Your task to perform on an android device: When is my next appointment? Image 0: 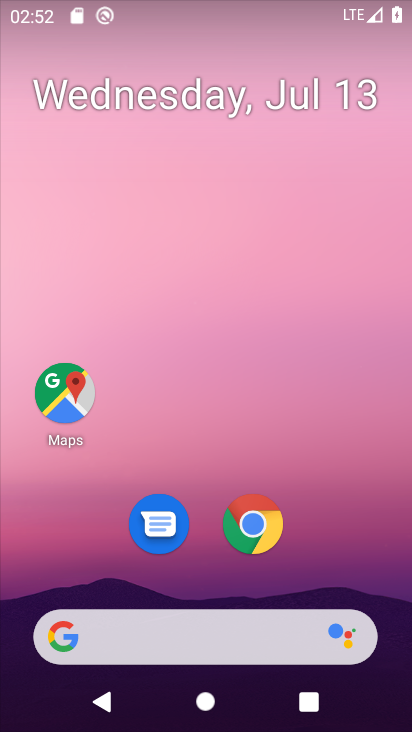
Step 0: drag from (319, 549) to (340, 75)
Your task to perform on an android device: When is my next appointment? Image 1: 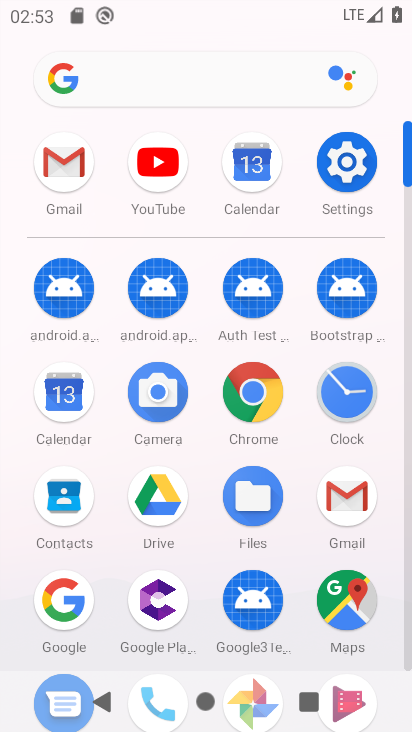
Step 1: click (258, 161)
Your task to perform on an android device: When is my next appointment? Image 2: 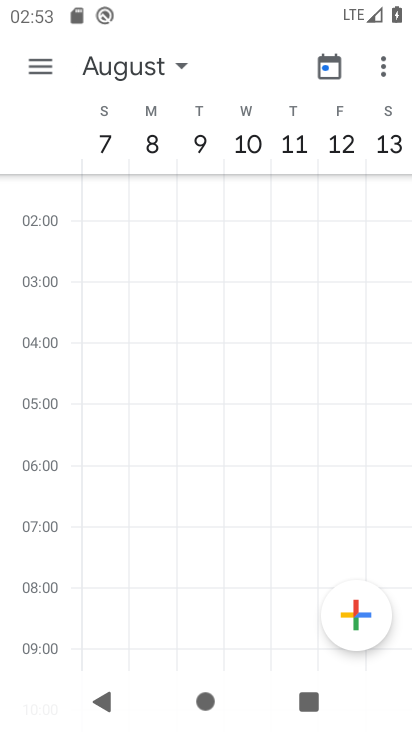
Step 2: click (42, 64)
Your task to perform on an android device: When is my next appointment? Image 3: 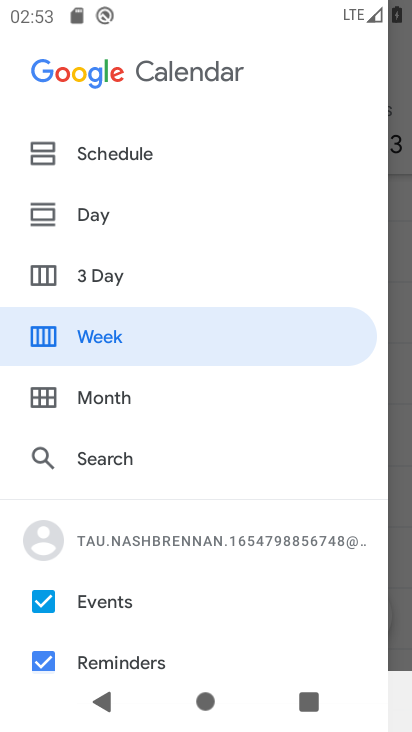
Step 3: click (47, 396)
Your task to perform on an android device: When is my next appointment? Image 4: 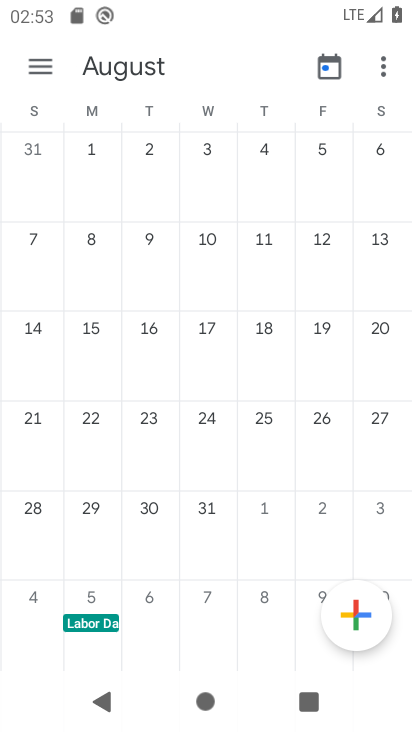
Step 4: drag from (129, 347) to (393, 348)
Your task to perform on an android device: When is my next appointment? Image 5: 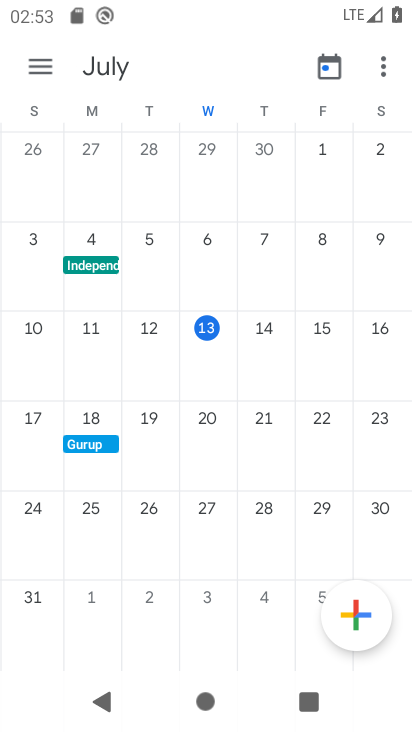
Step 5: click (210, 333)
Your task to perform on an android device: When is my next appointment? Image 6: 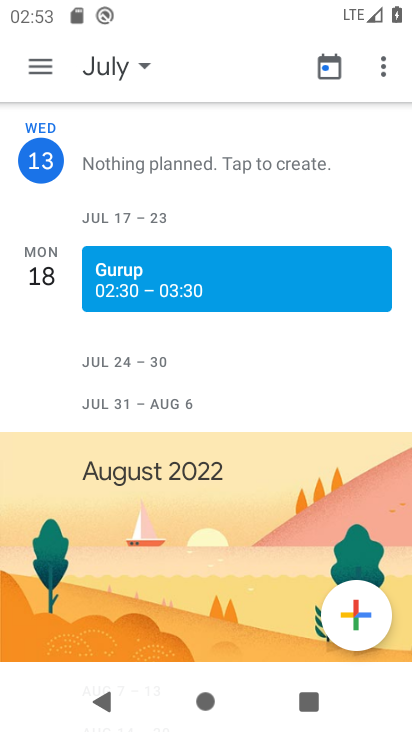
Step 6: task complete